Your task to perform on an android device: find photos in the google photos app Image 0: 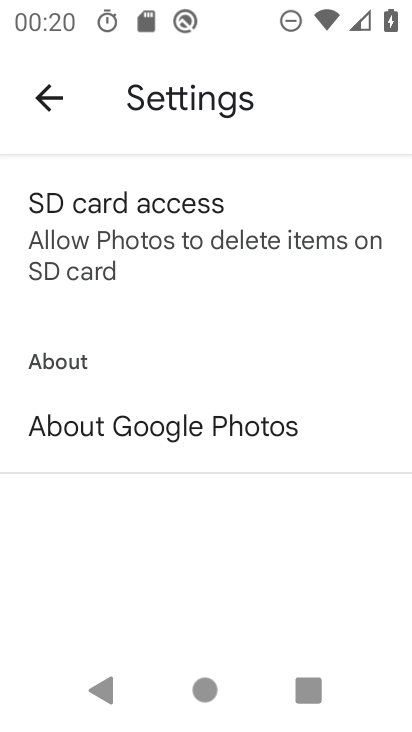
Step 0: press home button
Your task to perform on an android device: find photos in the google photos app Image 1: 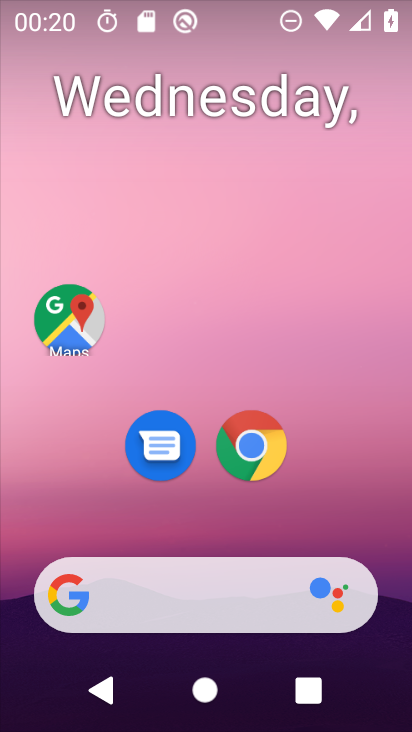
Step 1: drag from (311, 506) to (307, 0)
Your task to perform on an android device: find photos in the google photos app Image 2: 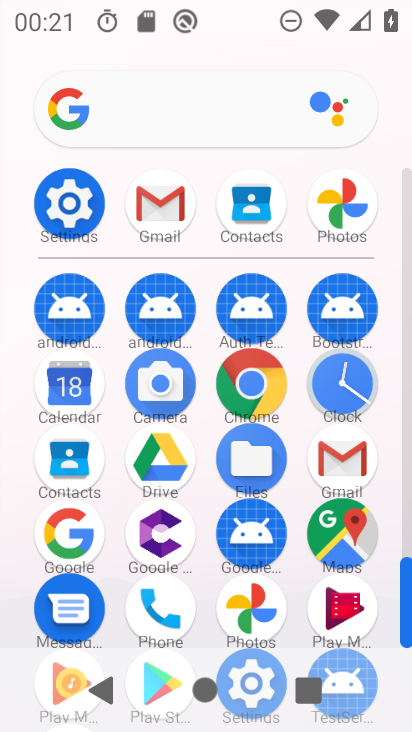
Step 2: click (334, 204)
Your task to perform on an android device: find photos in the google photos app Image 3: 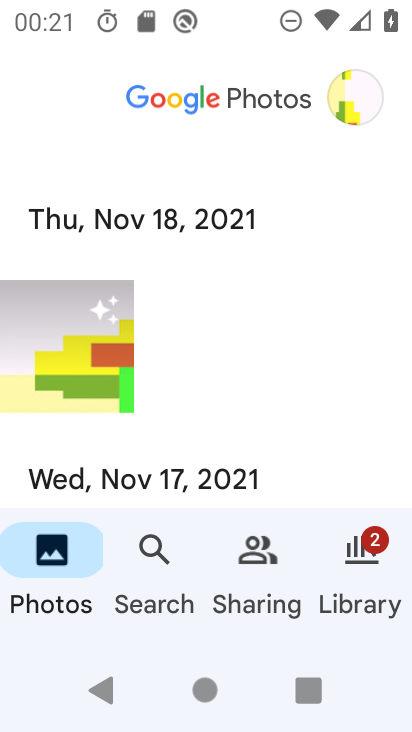
Step 3: task complete